Your task to perform on an android device: Open accessibility settings Image 0: 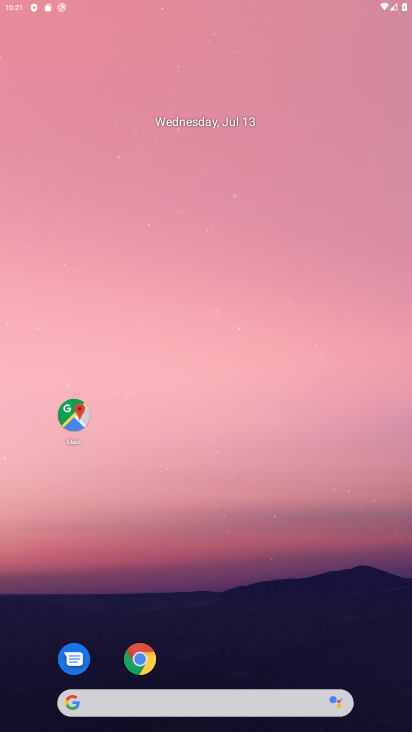
Step 0: click (141, 660)
Your task to perform on an android device: Open accessibility settings Image 1: 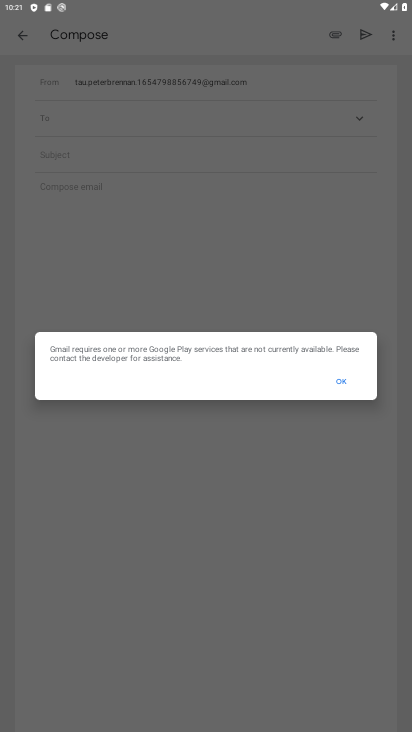
Step 1: click (339, 389)
Your task to perform on an android device: Open accessibility settings Image 2: 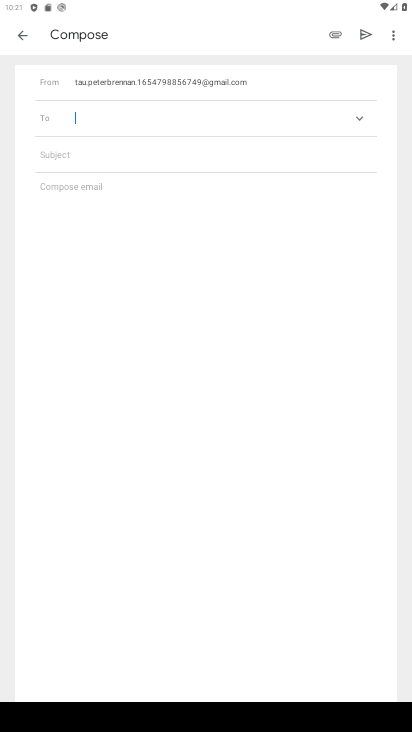
Step 2: press home button
Your task to perform on an android device: Open accessibility settings Image 3: 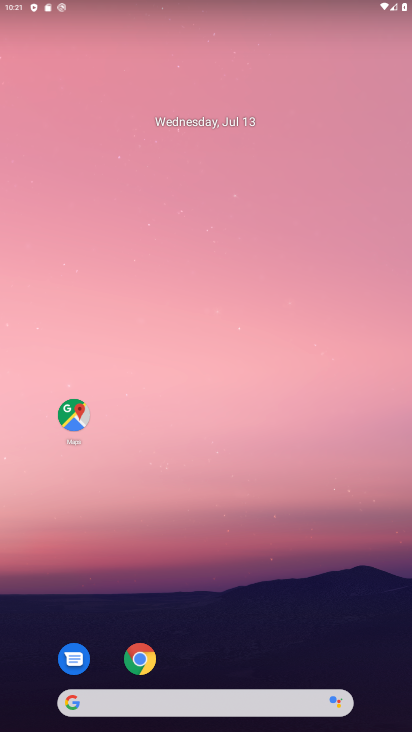
Step 3: drag from (310, 642) to (268, 182)
Your task to perform on an android device: Open accessibility settings Image 4: 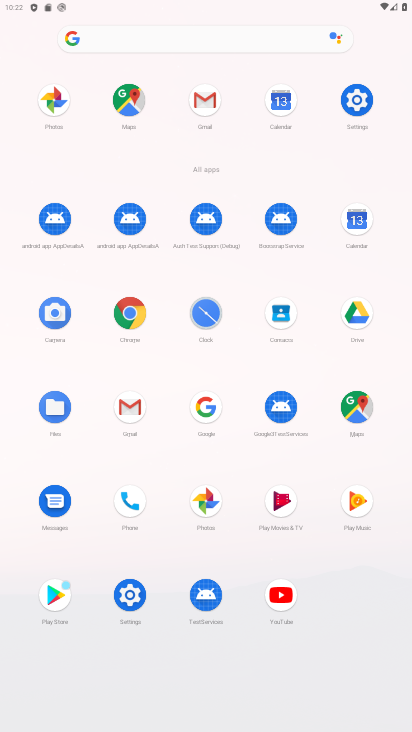
Step 4: click (129, 591)
Your task to perform on an android device: Open accessibility settings Image 5: 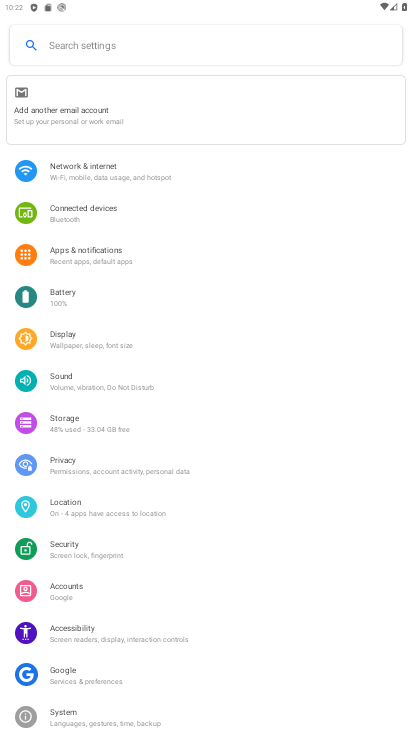
Step 5: click (67, 624)
Your task to perform on an android device: Open accessibility settings Image 6: 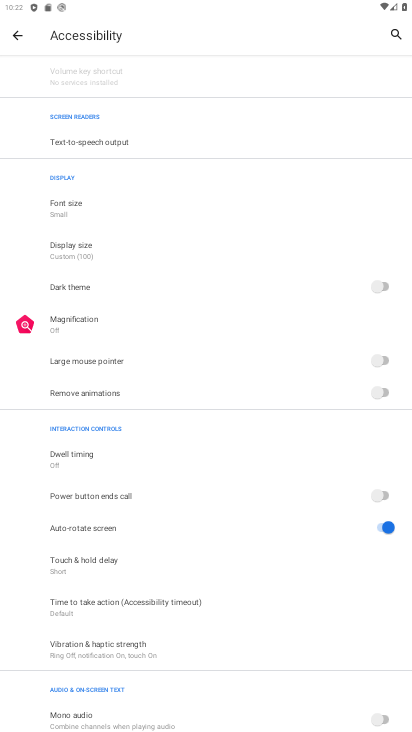
Step 6: task complete